Your task to perform on an android device: Open accessibility settings Image 0: 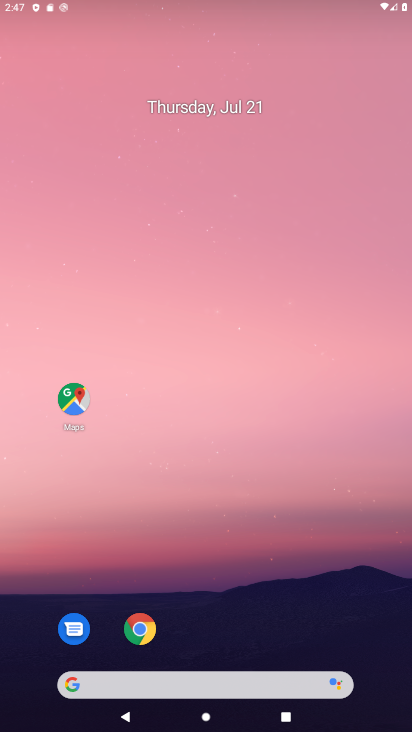
Step 0: press home button
Your task to perform on an android device: Open accessibility settings Image 1: 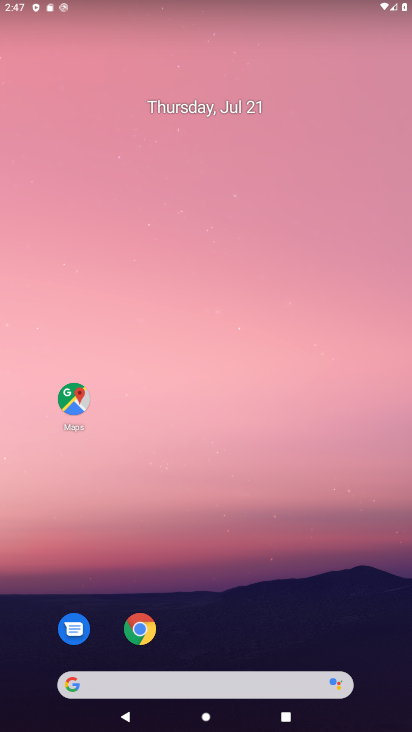
Step 1: drag from (264, 664) to (247, 91)
Your task to perform on an android device: Open accessibility settings Image 2: 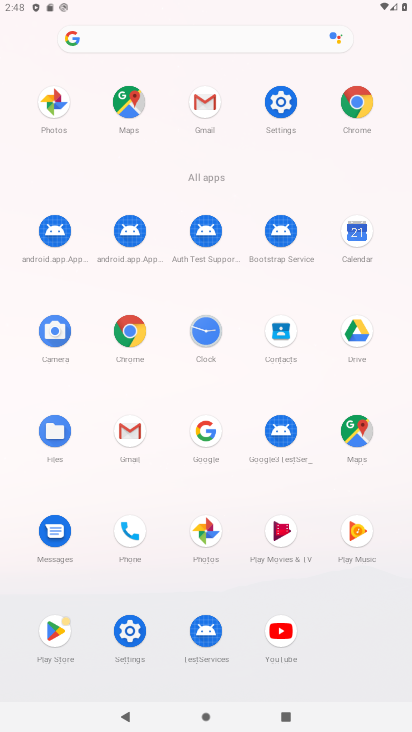
Step 2: click (111, 644)
Your task to perform on an android device: Open accessibility settings Image 3: 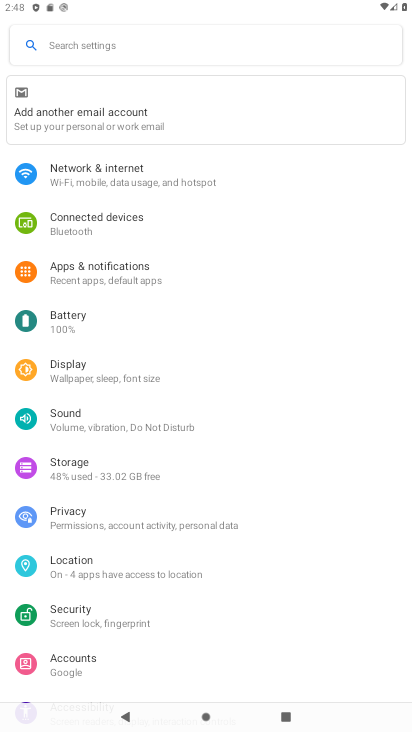
Step 3: drag from (75, 627) to (121, 95)
Your task to perform on an android device: Open accessibility settings Image 4: 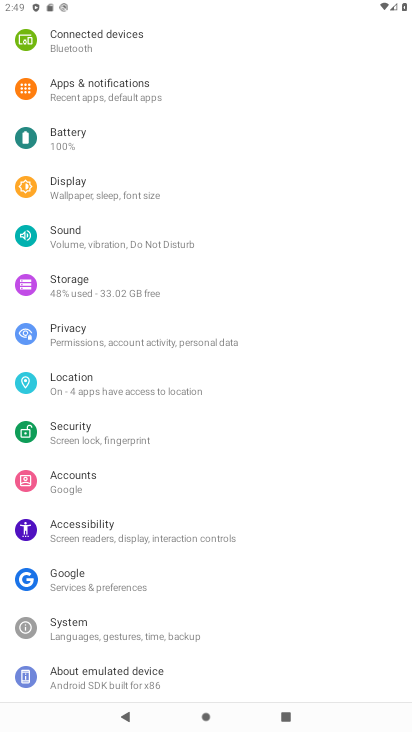
Step 4: click (83, 537)
Your task to perform on an android device: Open accessibility settings Image 5: 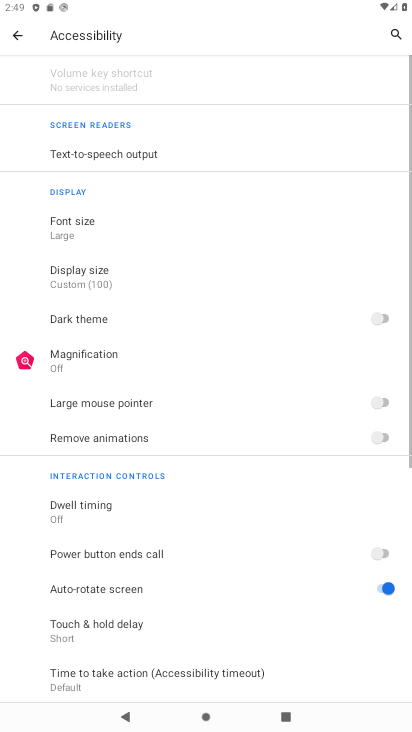
Step 5: task complete